Your task to perform on an android device: turn on location history Image 0: 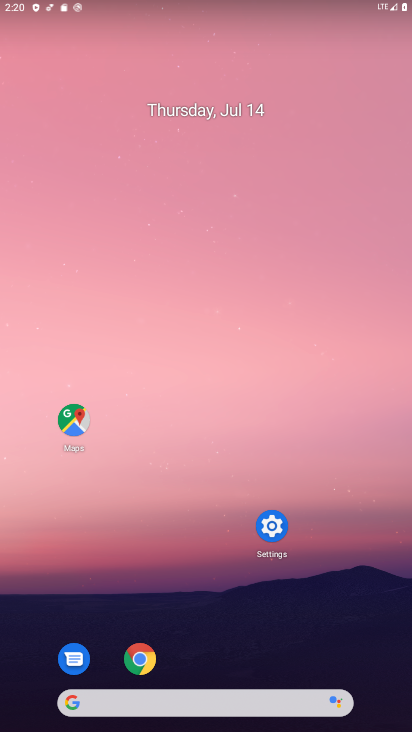
Step 0: press home button
Your task to perform on an android device: turn on location history Image 1: 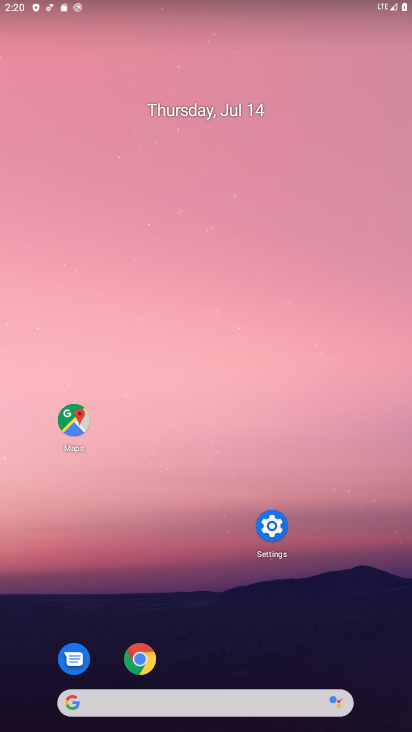
Step 1: click (274, 546)
Your task to perform on an android device: turn on location history Image 2: 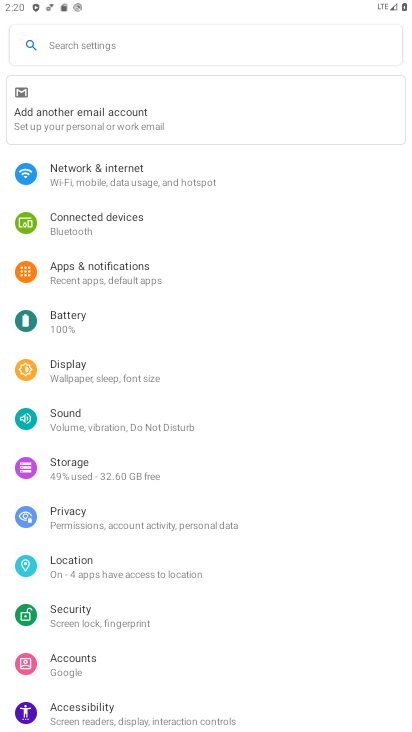
Step 2: click (105, 564)
Your task to perform on an android device: turn on location history Image 3: 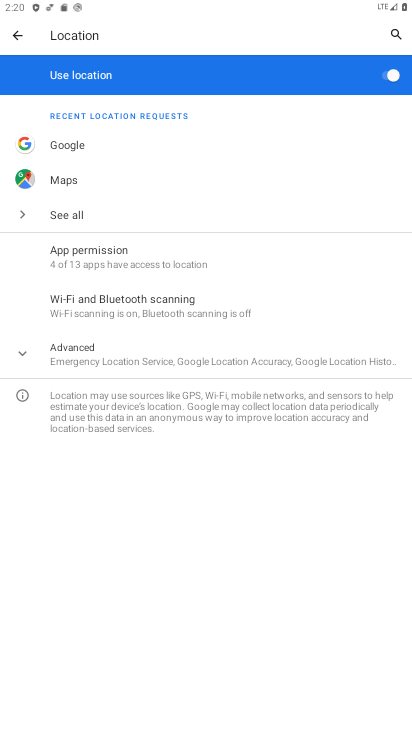
Step 3: click (49, 350)
Your task to perform on an android device: turn on location history Image 4: 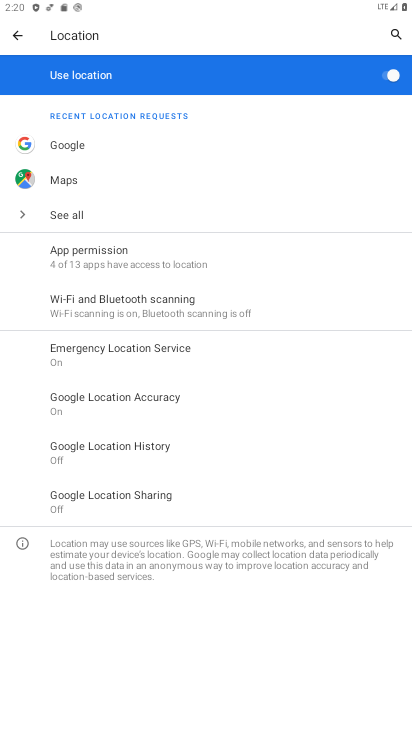
Step 4: click (100, 450)
Your task to perform on an android device: turn on location history Image 5: 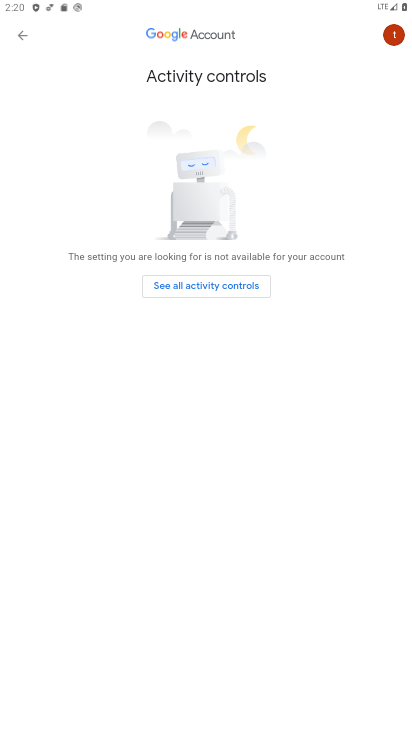
Step 5: click (193, 276)
Your task to perform on an android device: turn on location history Image 6: 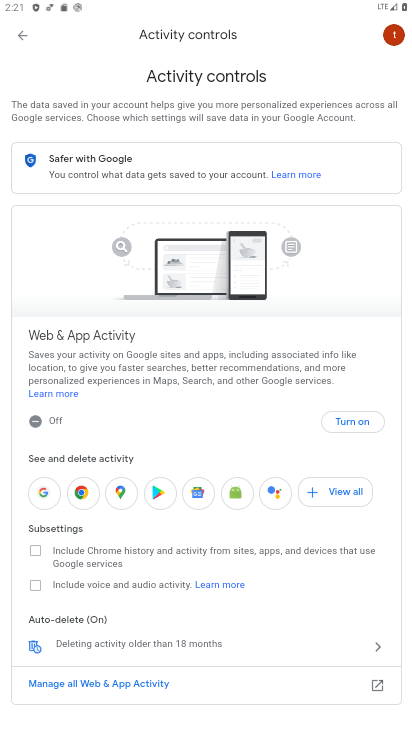
Step 6: task complete